Your task to perform on an android device: Toggle the flashlight Image 0: 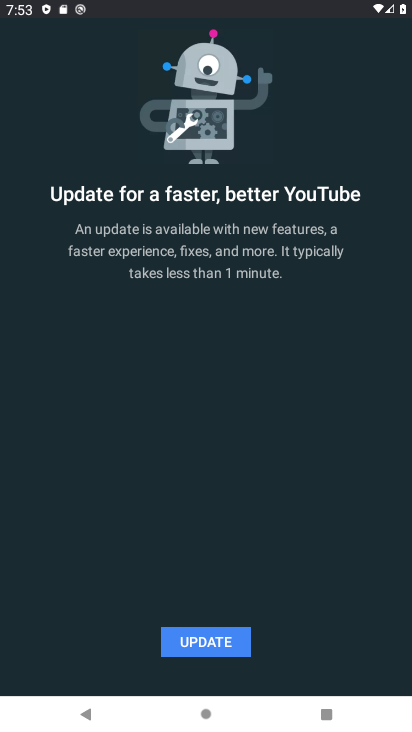
Step 0: press back button
Your task to perform on an android device: Toggle the flashlight Image 1: 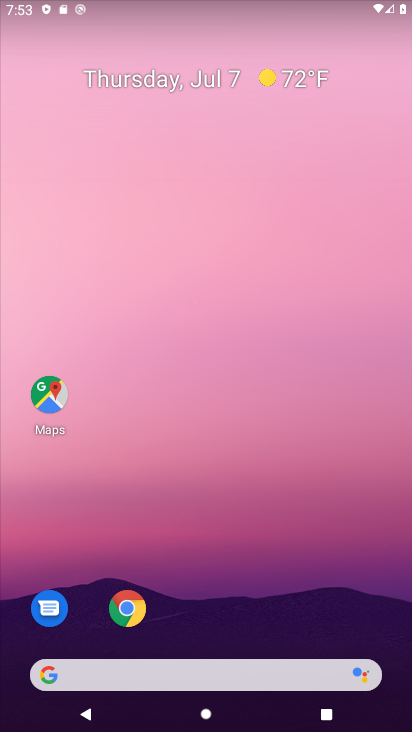
Step 1: drag from (390, 662) to (314, 265)
Your task to perform on an android device: Toggle the flashlight Image 2: 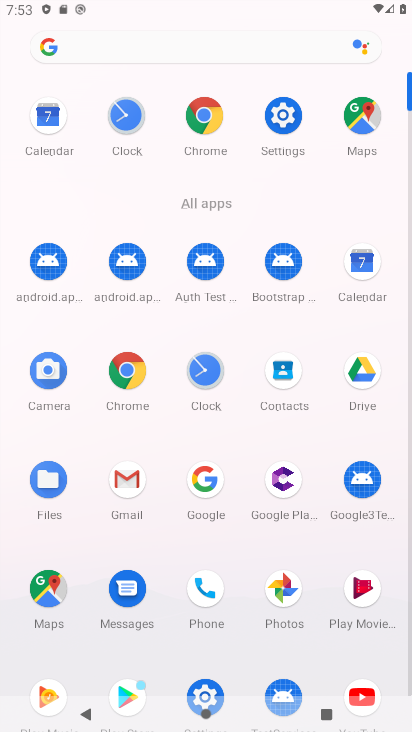
Step 2: drag from (274, 125) to (205, 402)
Your task to perform on an android device: Toggle the flashlight Image 3: 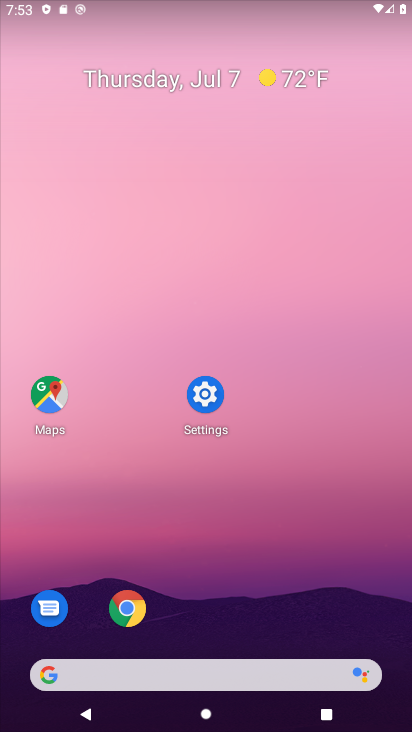
Step 3: click (205, 398)
Your task to perform on an android device: Toggle the flashlight Image 4: 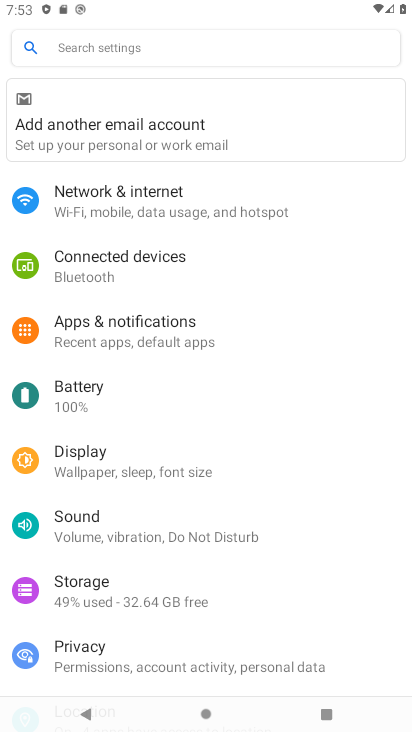
Step 4: click (74, 364)
Your task to perform on an android device: Toggle the flashlight Image 5: 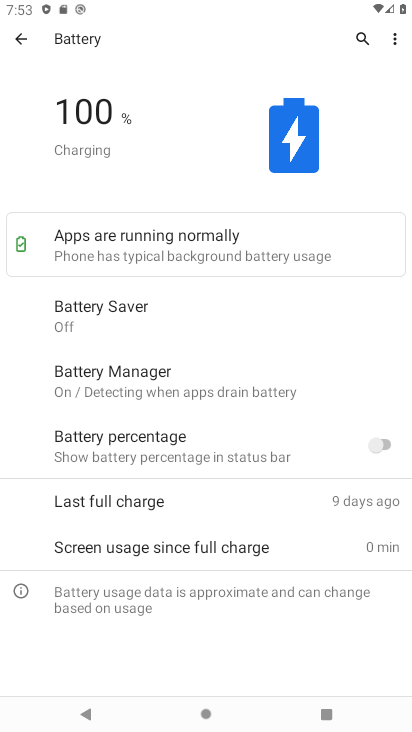
Step 5: click (15, 51)
Your task to perform on an android device: Toggle the flashlight Image 6: 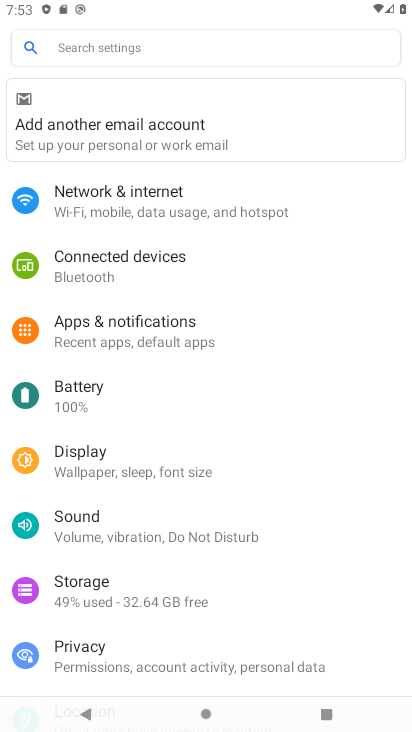
Step 6: click (81, 469)
Your task to perform on an android device: Toggle the flashlight Image 7: 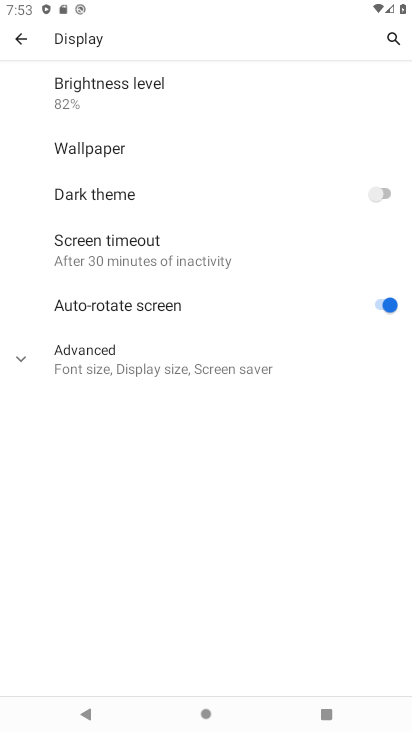
Step 7: task complete